Your task to perform on an android device: Search for flights from Buenos aires to Tokyo Image 0: 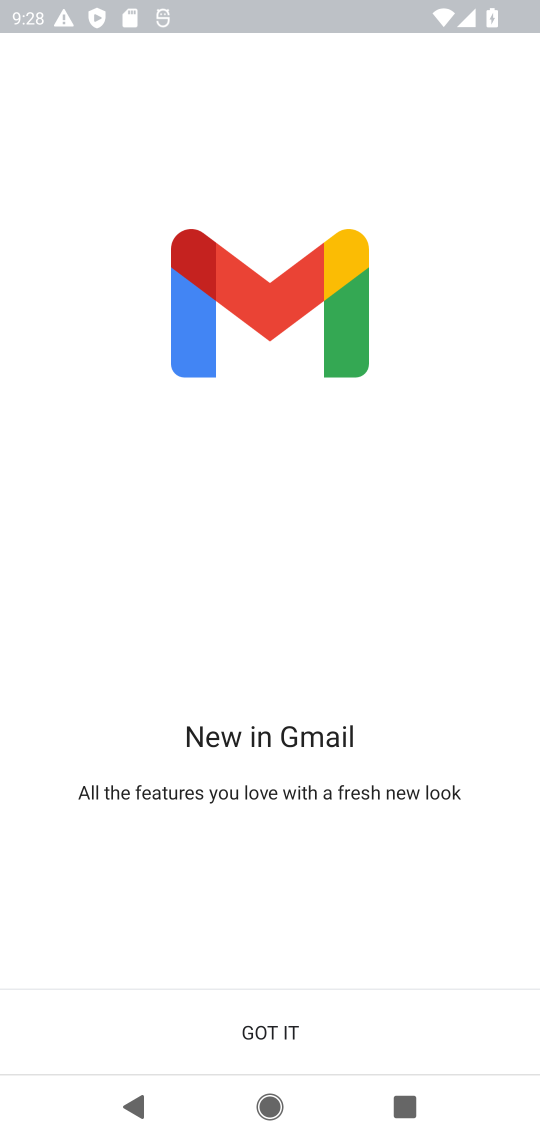
Step 0: press home button
Your task to perform on an android device: Search for flights from Buenos aires to Tokyo Image 1: 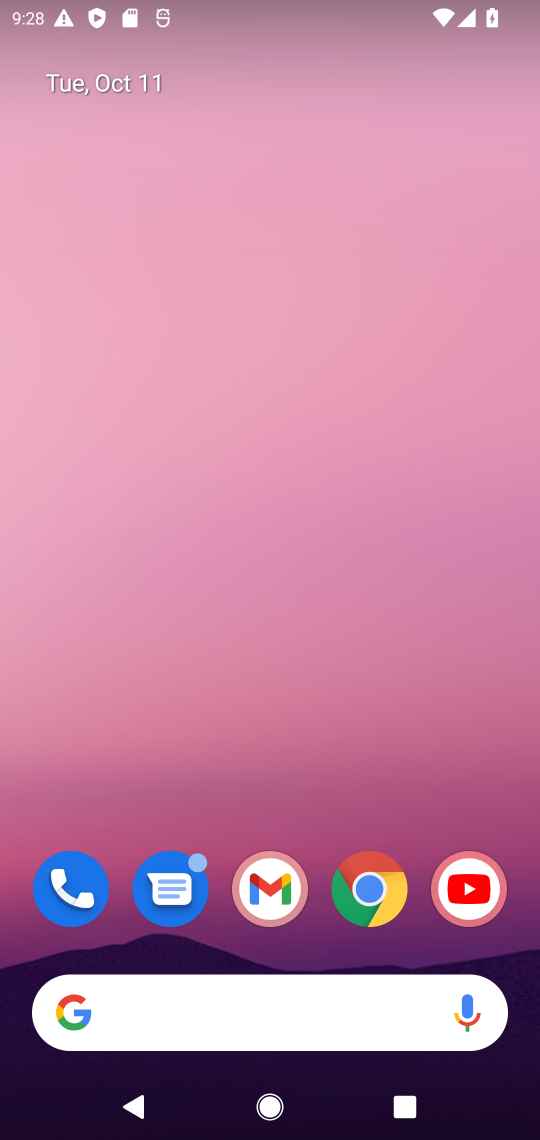
Step 1: click (273, 1000)
Your task to perform on an android device: Search for flights from Buenos aires to Tokyo Image 2: 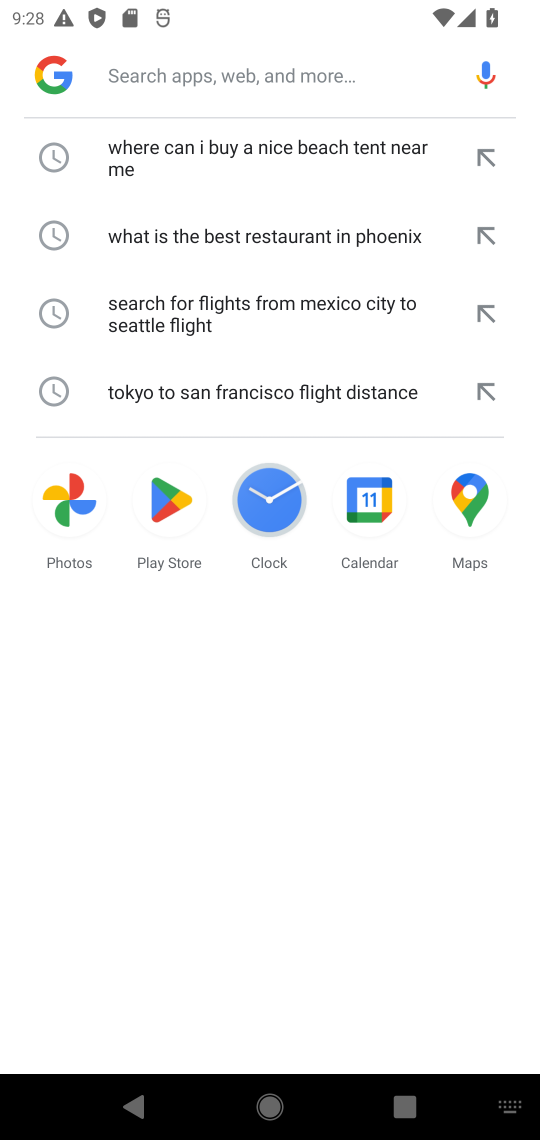
Step 2: type "Search for flights from Buenos aires to Tokyo"
Your task to perform on an android device: Search for flights from Buenos aires to Tokyo Image 3: 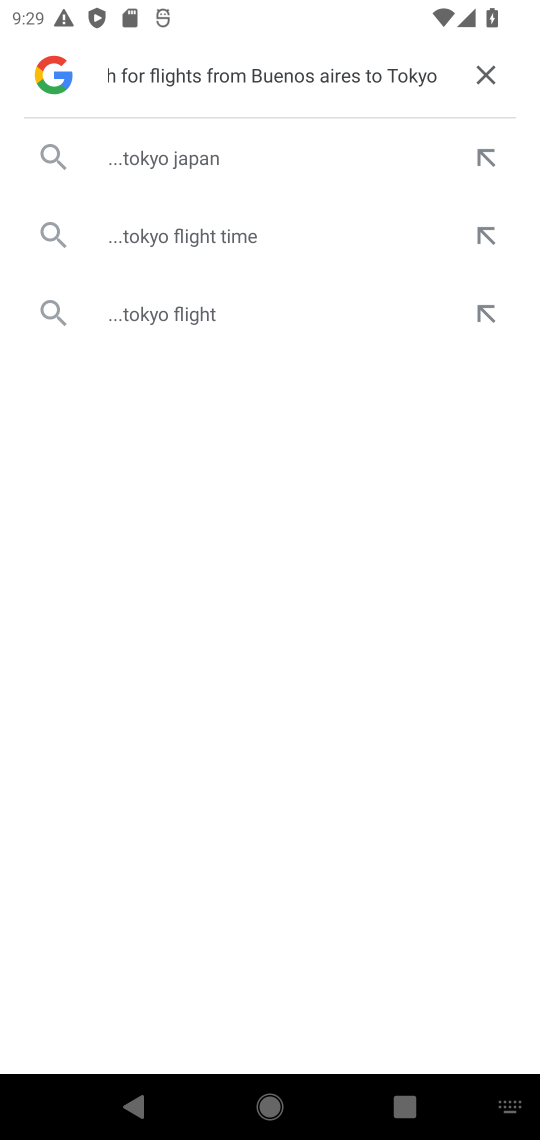
Step 3: click (164, 152)
Your task to perform on an android device: Search for flights from Buenos aires to Tokyo Image 4: 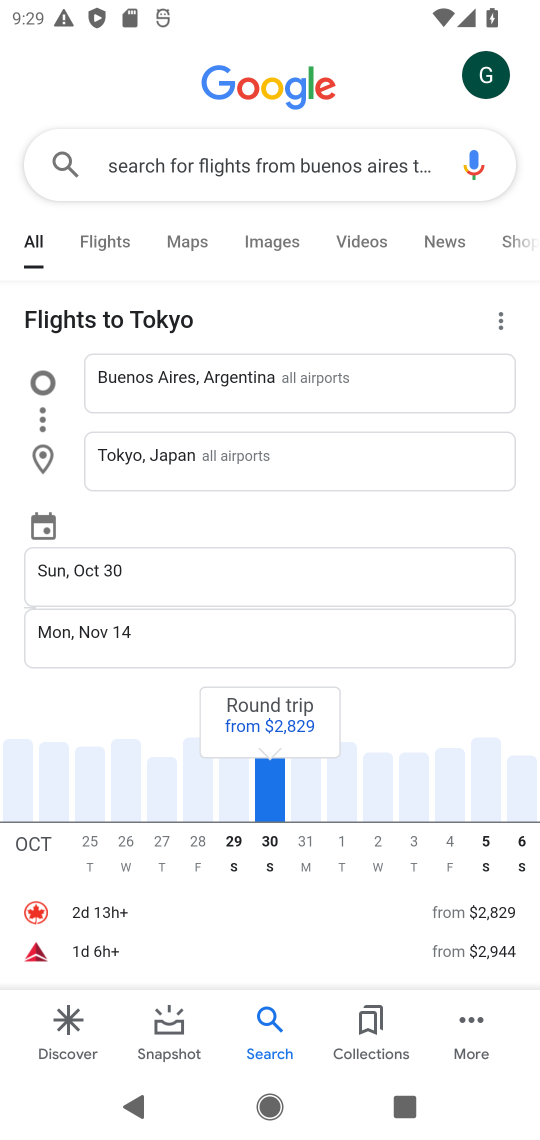
Step 4: drag from (401, 650) to (397, 427)
Your task to perform on an android device: Search for flights from Buenos aires to Tokyo Image 5: 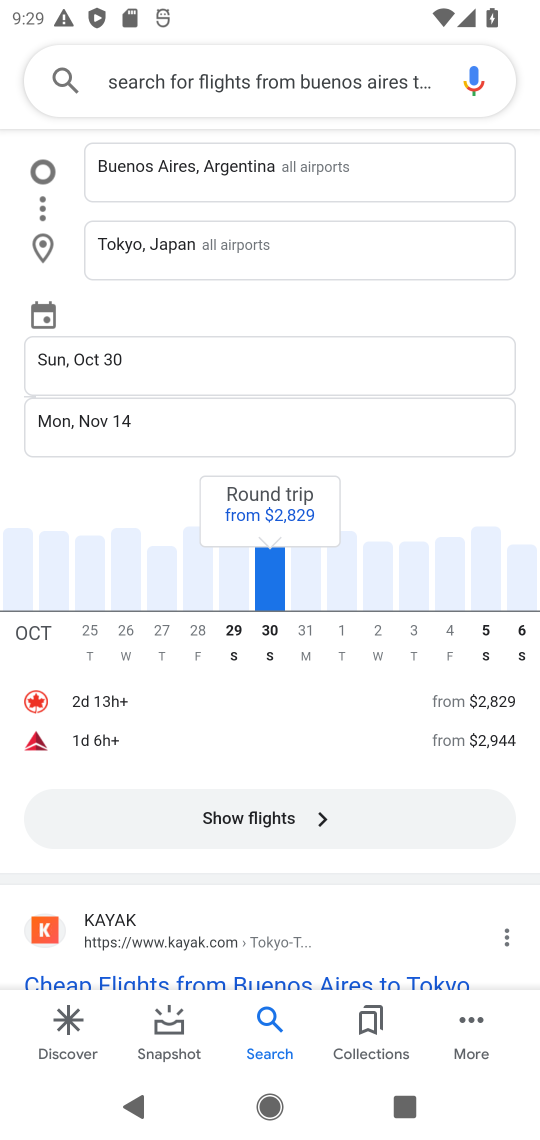
Step 5: click (313, 818)
Your task to perform on an android device: Search for flights from Buenos aires to Tokyo Image 6: 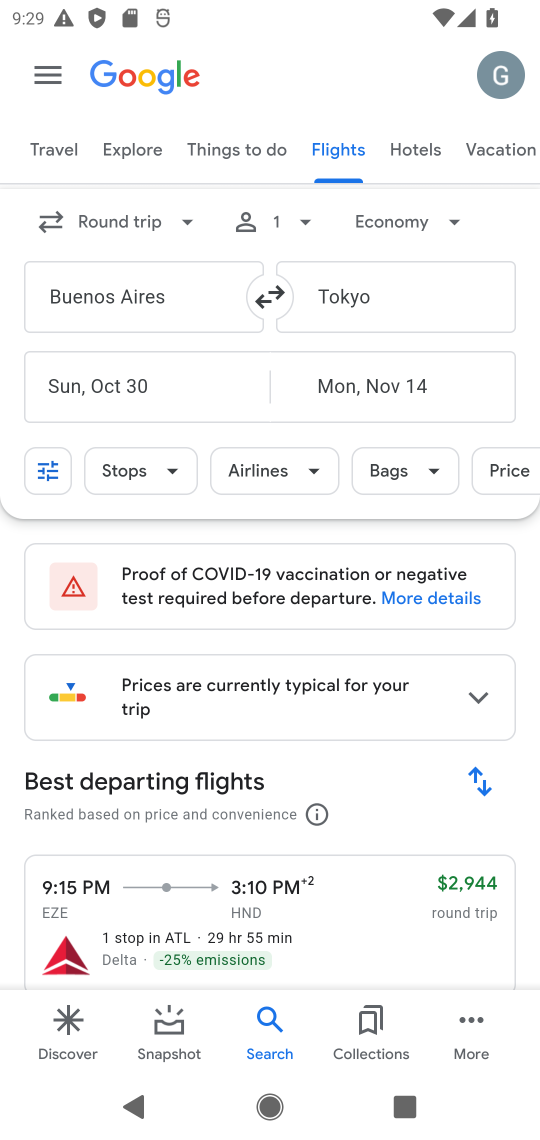
Step 6: task complete